Your task to perform on an android device: How much does a 3 bedroom apartment rent for in Dallas? Image 0: 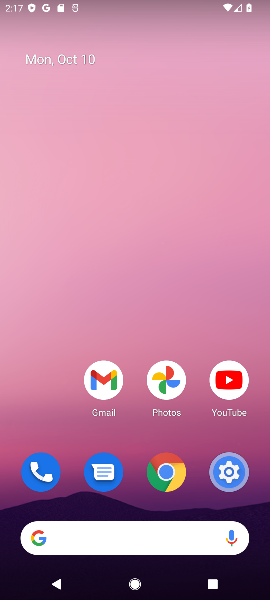
Step 0: click (120, 533)
Your task to perform on an android device: How much does a 3 bedroom apartment rent for in Dallas? Image 1: 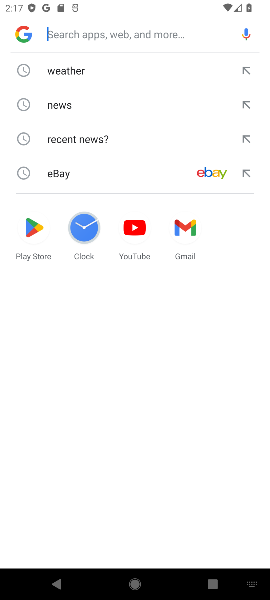
Step 1: type "How much does a 3 bedroom apartment rent for in Dallas"
Your task to perform on an android device: How much does a 3 bedroom apartment rent for in Dallas? Image 2: 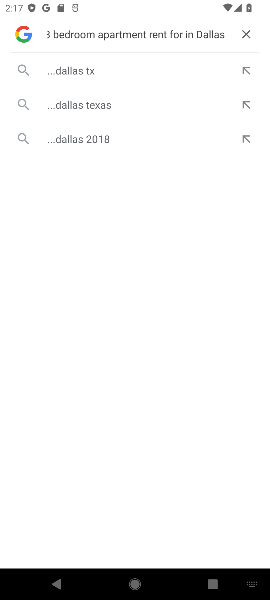
Step 2: click (81, 75)
Your task to perform on an android device: How much does a 3 bedroom apartment rent for in Dallas? Image 3: 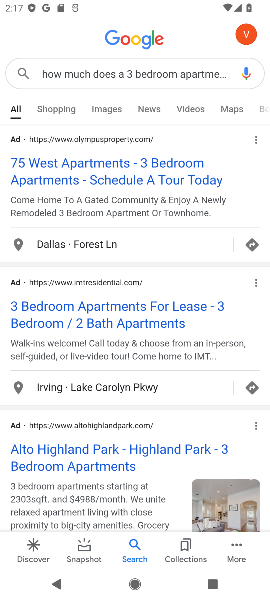
Step 3: task complete